Your task to perform on an android device: turn on javascript in the chrome app Image 0: 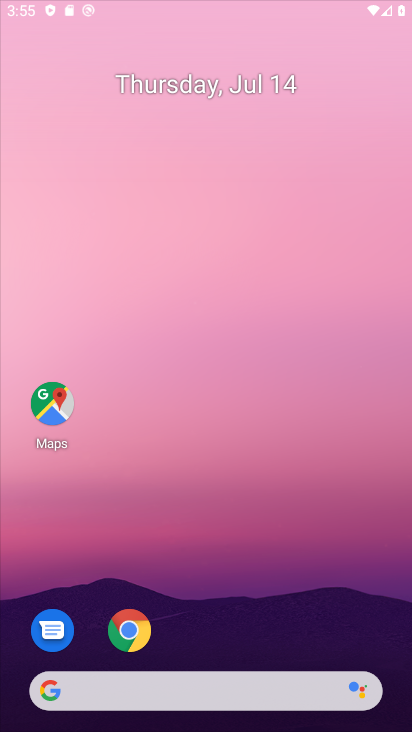
Step 0: click (303, 16)
Your task to perform on an android device: turn on javascript in the chrome app Image 1: 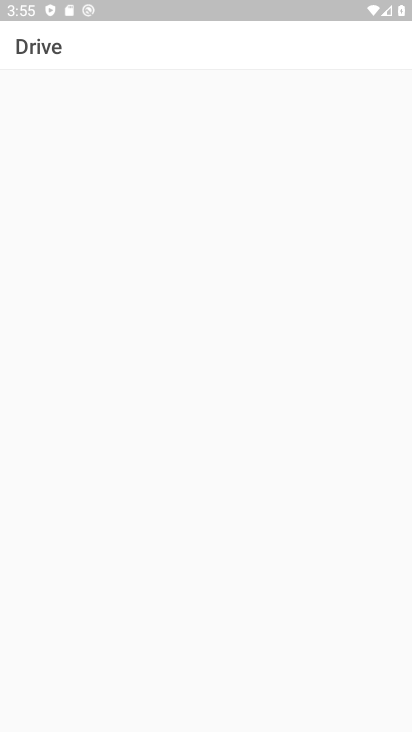
Step 1: press home button
Your task to perform on an android device: turn on javascript in the chrome app Image 2: 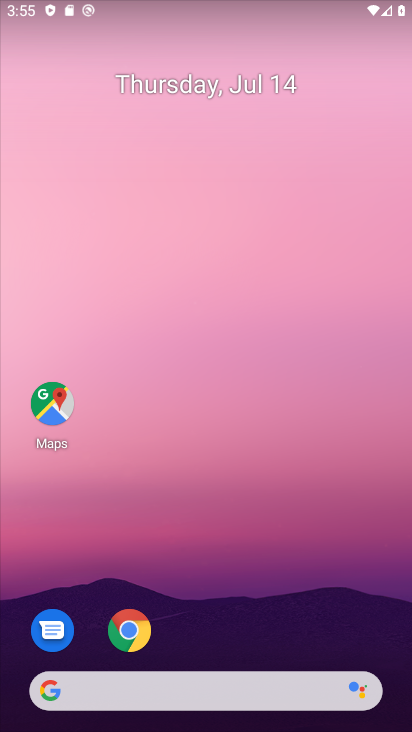
Step 2: drag from (189, 653) to (195, 113)
Your task to perform on an android device: turn on javascript in the chrome app Image 3: 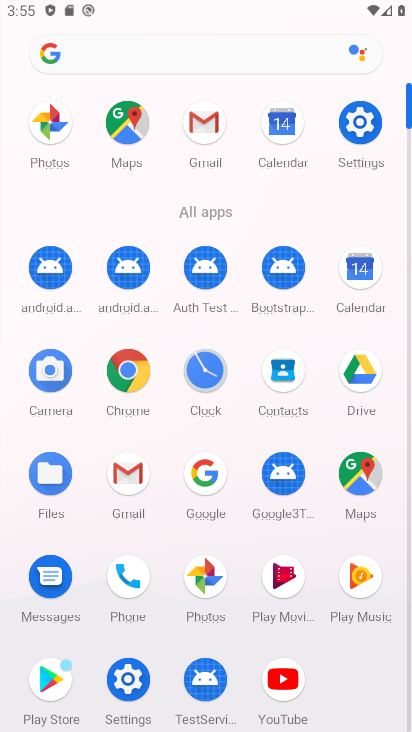
Step 3: click (127, 369)
Your task to perform on an android device: turn on javascript in the chrome app Image 4: 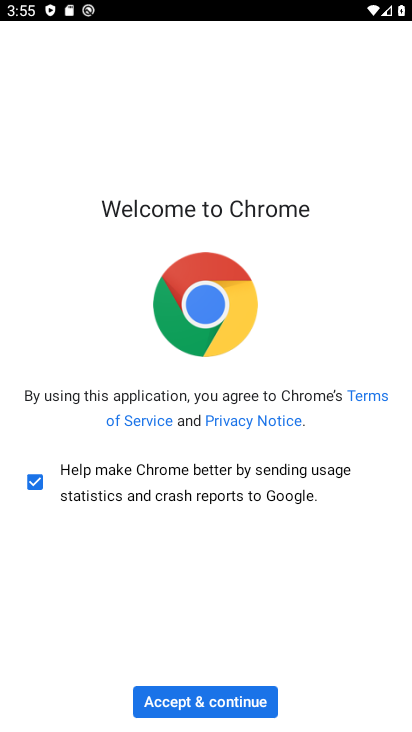
Step 4: click (212, 701)
Your task to perform on an android device: turn on javascript in the chrome app Image 5: 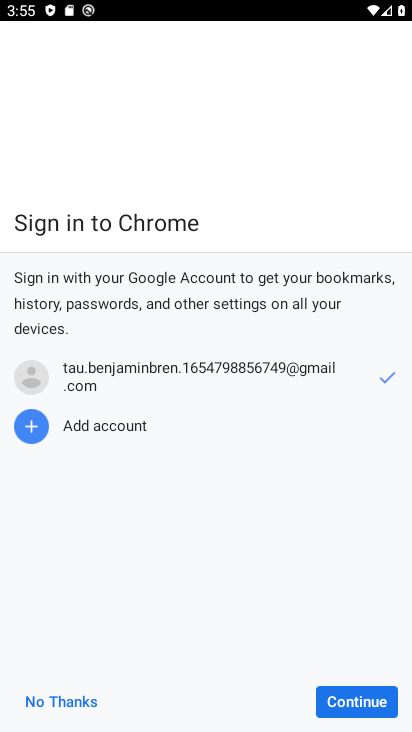
Step 5: click (348, 686)
Your task to perform on an android device: turn on javascript in the chrome app Image 6: 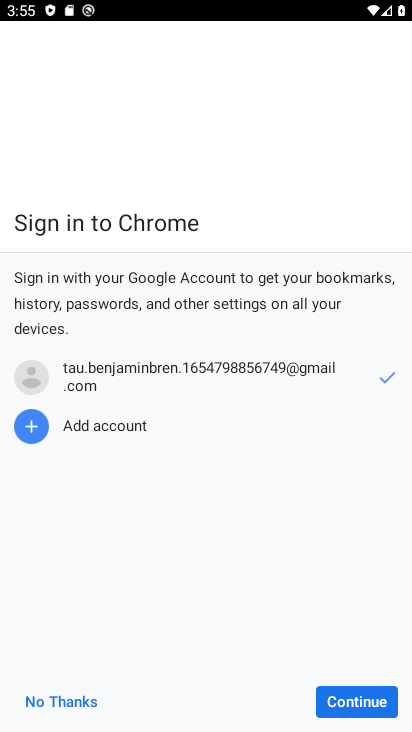
Step 6: click (372, 700)
Your task to perform on an android device: turn on javascript in the chrome app Image 7: 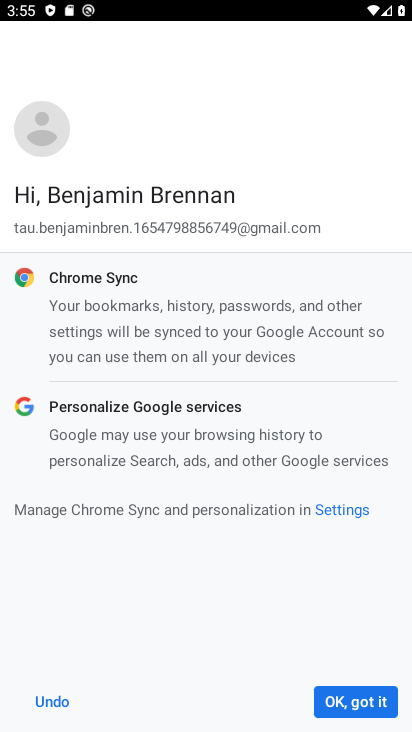
Step 7: click (372, 700)
Your task to perform on an android device: turn on javascript in the chrome app Image 8: 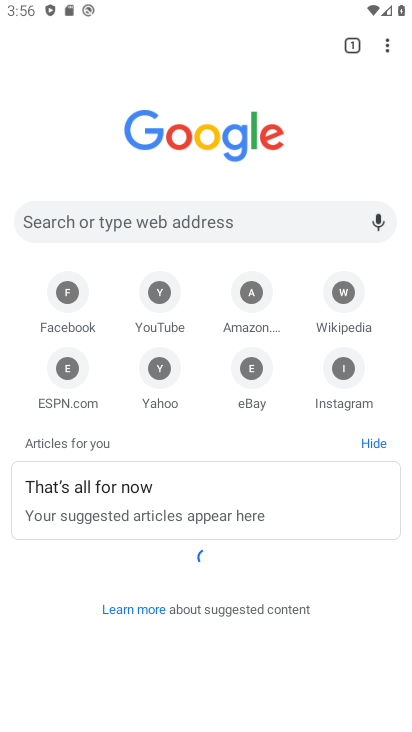
Step 8: drag from (399, 42) to (310, 361)
Your task to perform on an android device: turn on javascript in the chrome app Image 9: 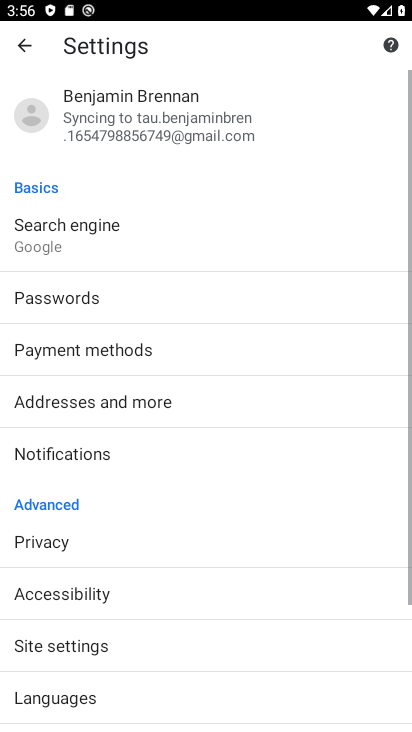
Step 9: drag from (142, 636) to (195, 421)
Your task to perform on an android device: turn on javascript in the chrome app Image 10: 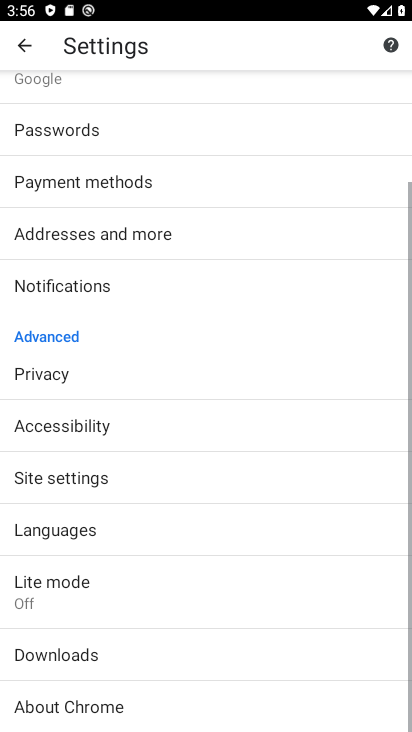
Step 10: click (107, 483)
Your task to perform on an android device: turn on javascript in the chrome app Image 11: 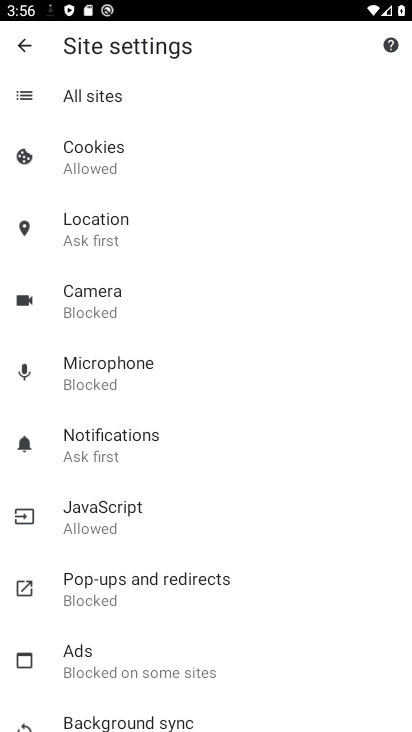
Step 11: click (177, 528)
Your task to perform on an android device: turn on javascript in the chrome app Image 12: 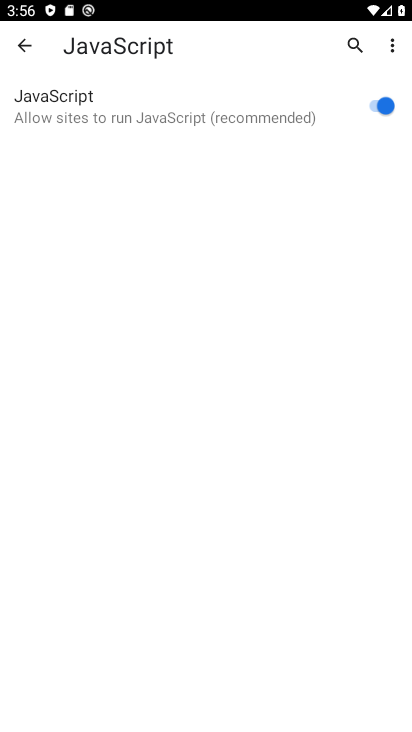
Step 12: task complete